Your task to perform on an android device: Search for pizza restaurants on Maps Image 0: 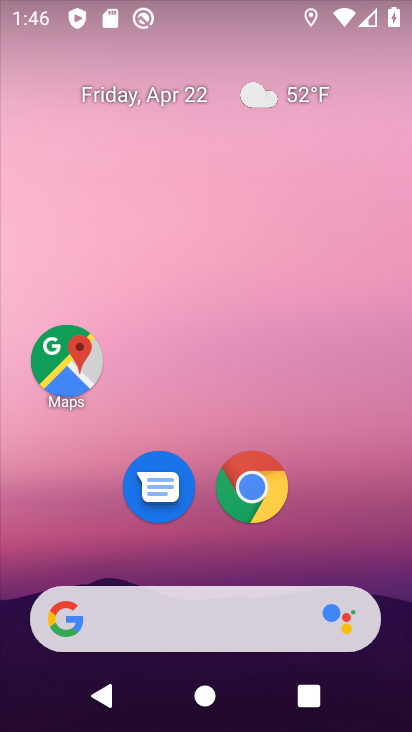
Step 0: drag from (204, 540) to (235, 187)
Your task to perform on an android device: Search for pizza restaurants on Maps Image 1: 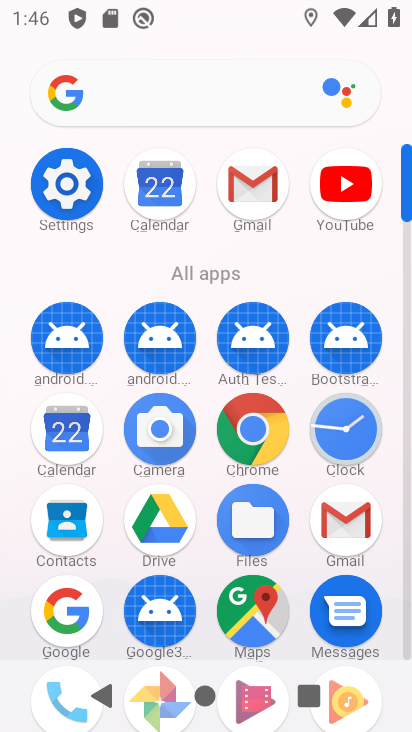
Step 1: click (255, 617)
Your task to perform on an android device: Search for pizza restaurants on Maps Image 2: 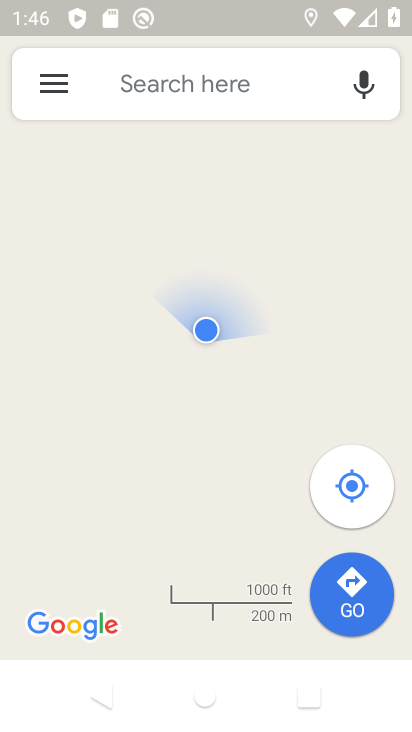
Step 2: click (195, 95)
Your task to perform on an android device: Search for pizza restaurants on Maps Image 3: 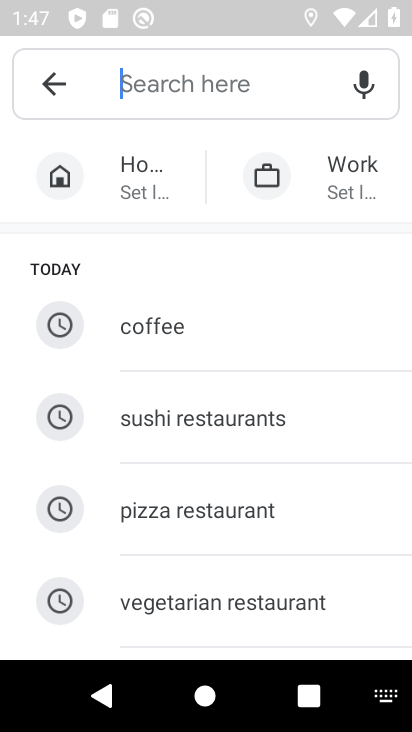
Step 3: type "pizza restaurants"
Your task to perform on an android device: Search for pizza restaurants on Maps Image 4: 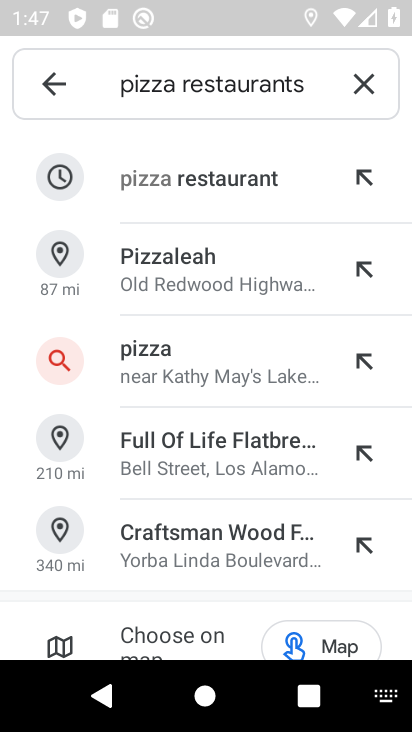
Step 4: click (206, 191)
Your task to perform on an android device: Search for pizza restaurants on Maps Image 5: 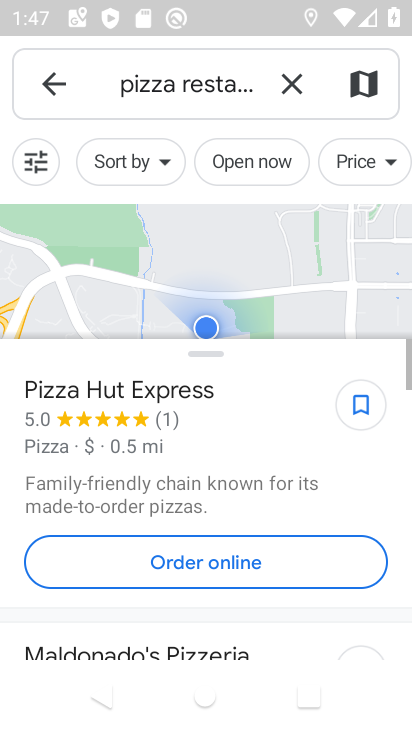
Step 5: task complete